Your task to perform on an android device: find photos in the google photos app Image 0: 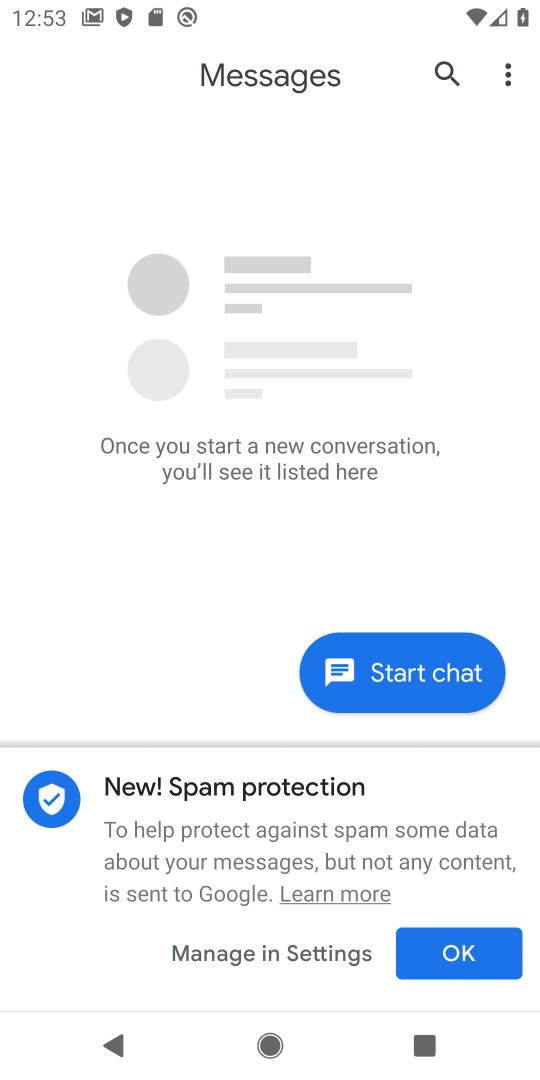
Step 0: press home button
Your task to perform on an android device: find photos in the google photos app Image 1: 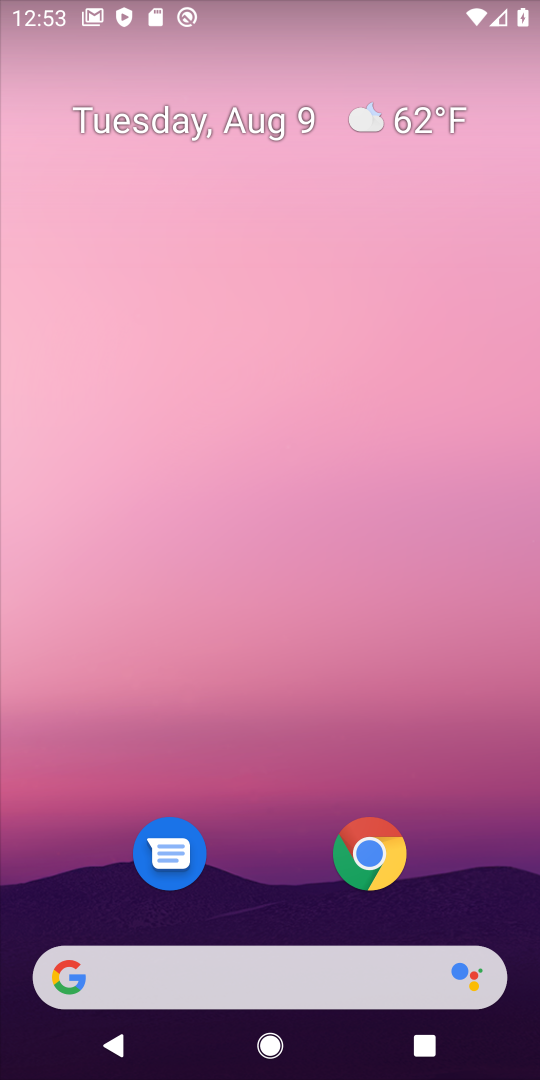
Step 1: drag from (238, 964) to (219, 359)
Your task to perform on an android device: find photos in the google photos app Image 2: 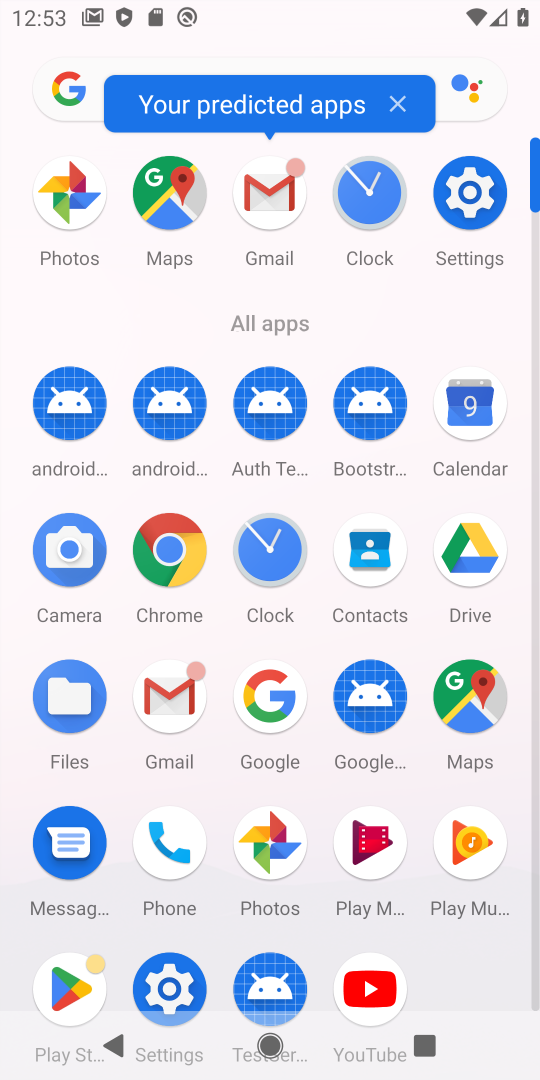
Step 2: click (291, 847)
Your task to perform on an android device: find photos in the google photos app Image 3: 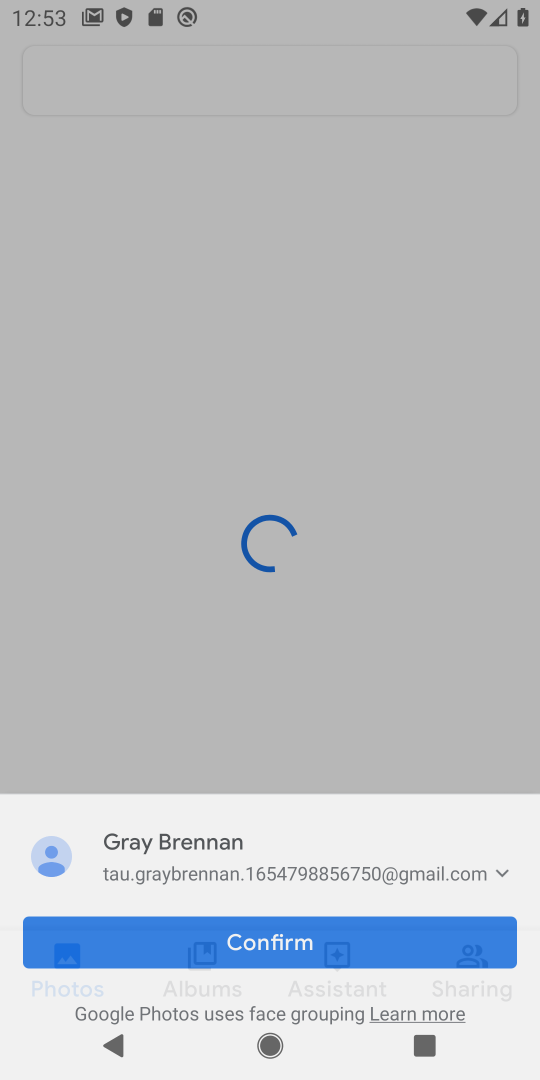
Step 3: task complete